Your task to perform on an android device: Go to Wikipedia Image 0: 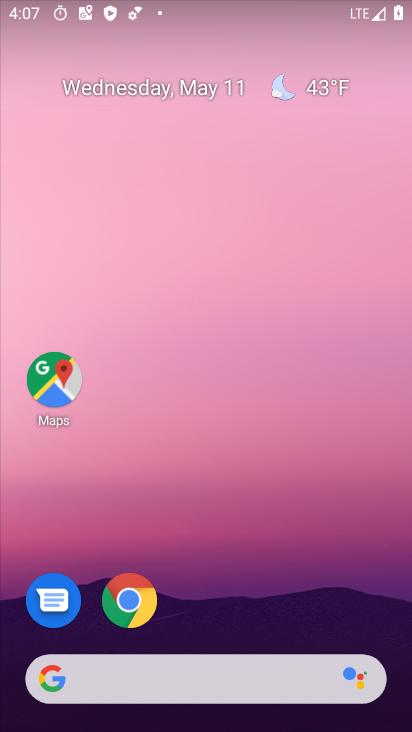
Step 0: click (136, 607)
Your task to perform on an android device: Go to Wikipedia Image 1: 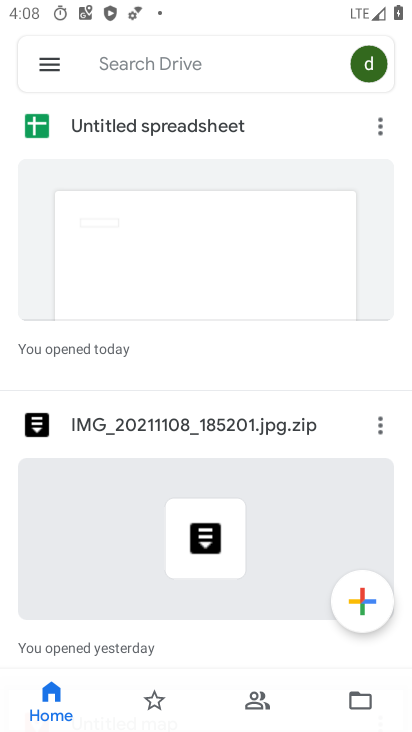
Step 1: press home button
Your task to perform on an android device: Go to Wikipedia Image 2: 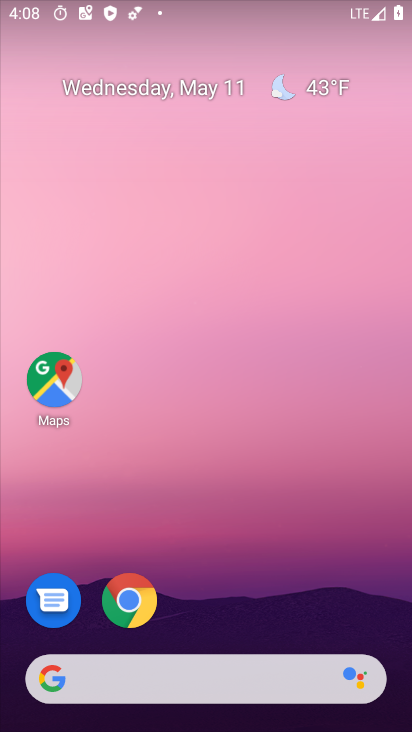
Step 2: press home button
Your task to perform on an android device: Go to Wikipedia Image 3: 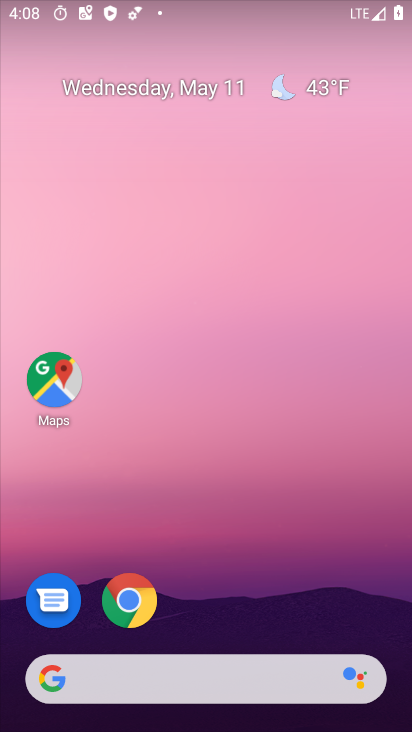
Step 3: click (141, 594)
Your task to perform on an android device: Go to Wikipedia Image 4: 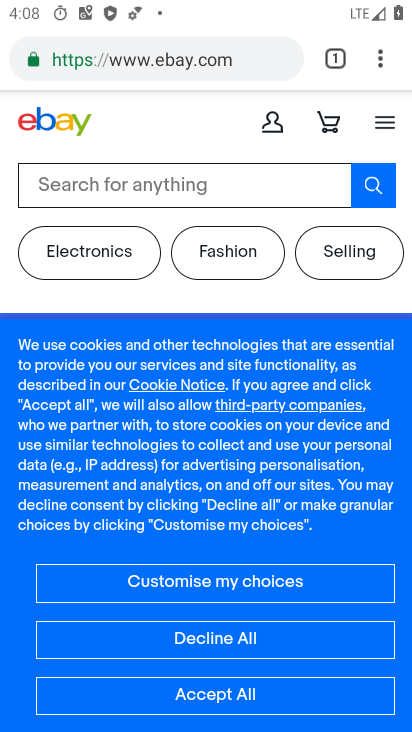
Step 4: click (126, 70)
Your task to perform on an android device: Go to Wikipedia Image 5: 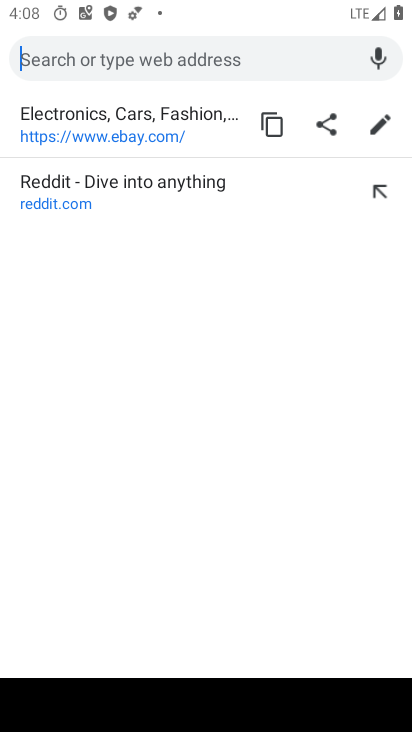
Step 5: type "wikipedia"
Your task to perform on an android device: Go to Wikipedia Image 6: 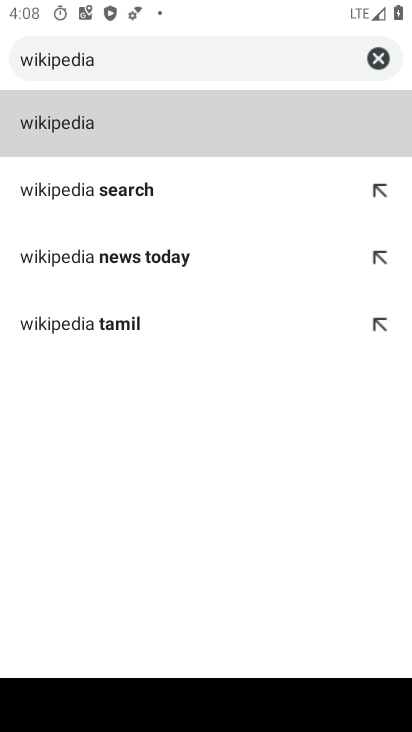
Step 6: click (50, 114)
Your task to perform on an android device: Go to Wikipedia Image 7: 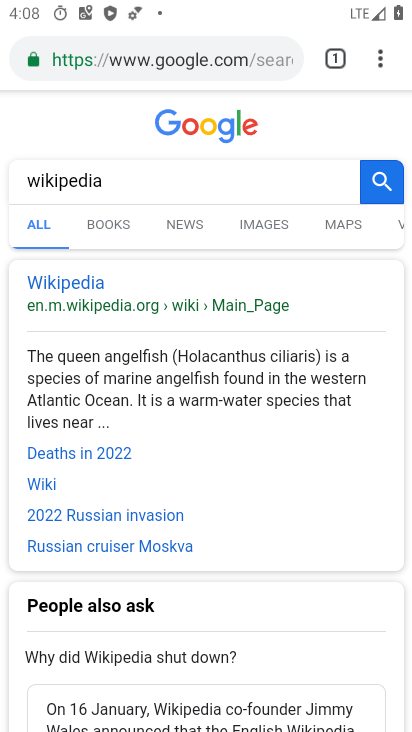
Step 7: click (71, 287)
Your task to perform on an android device: Go to Wikipedia Image 8: 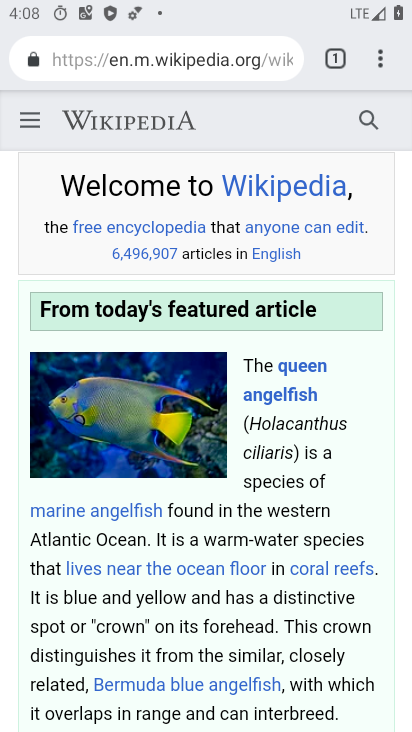
Step 8: task complete